Your task to perform on an android device: turn on location history Image 0: 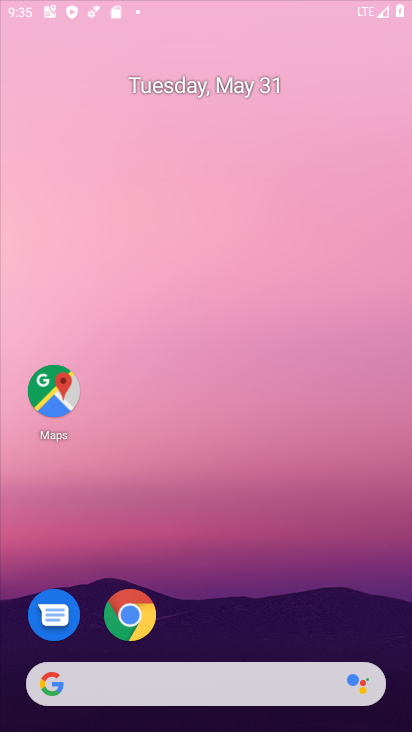
Step 0: click (348, 103)
Your task to perform on an android device: turn on location history Image 1: 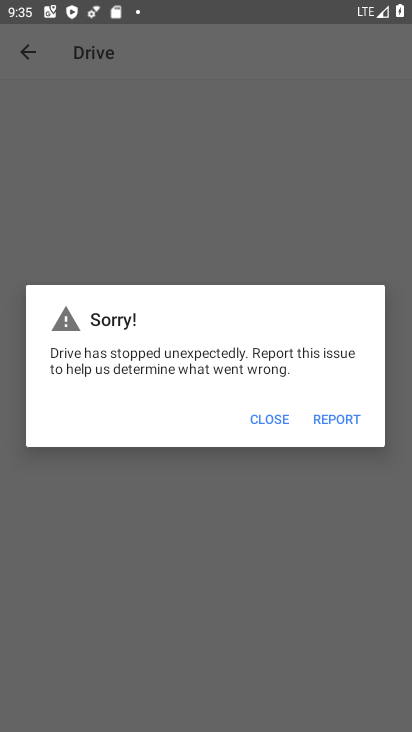
Step 1: press home button
Your task to perform on an android device: turn on location history Image 2: 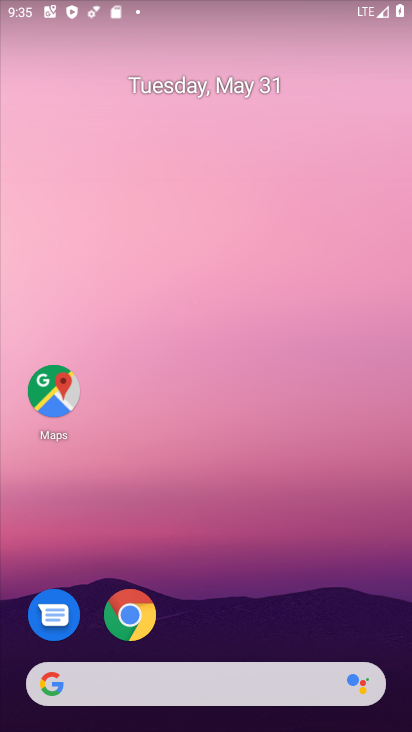
Step 2: drag from (286, 457) to (293, 152)
Your task to perform on an android device: turn on location history Image 3: 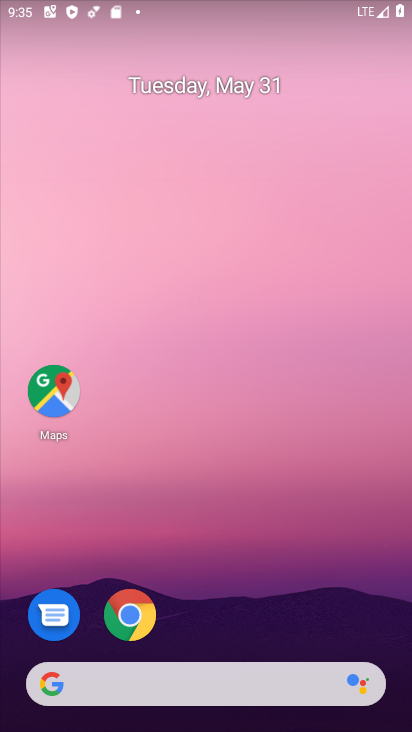
Step 3: drag from (325, 606) to (279, 168)
Your task to perform on an android device: turn on location history Image 4: 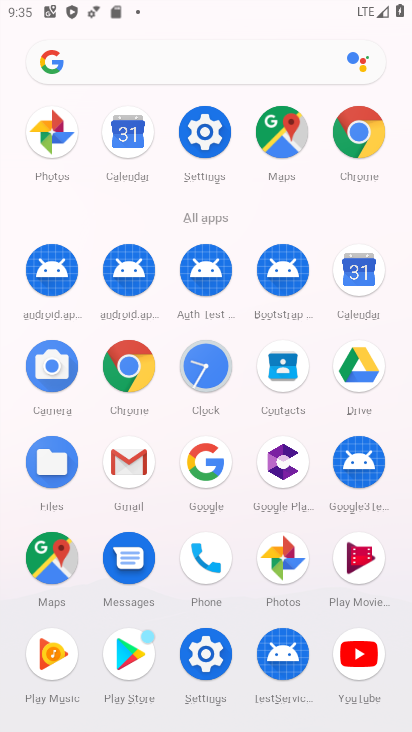
Step 4: click (187, 134)
Your task to perform on an android device: turn on location history Image 5: 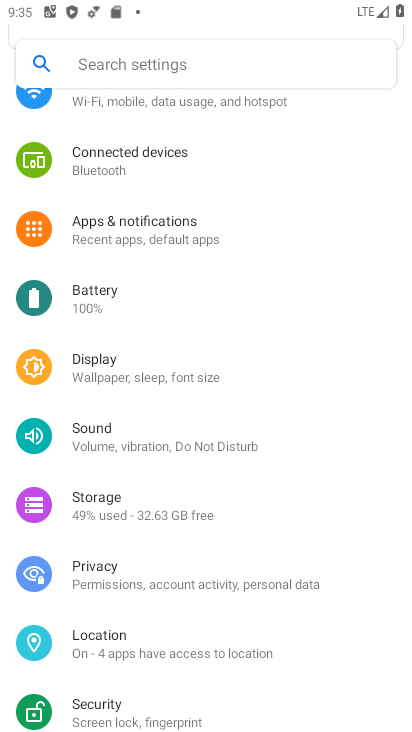
Step 5: drag from (206, 607) to (194, 294)
Your task to perform on an android device: turn on location history Image 6: 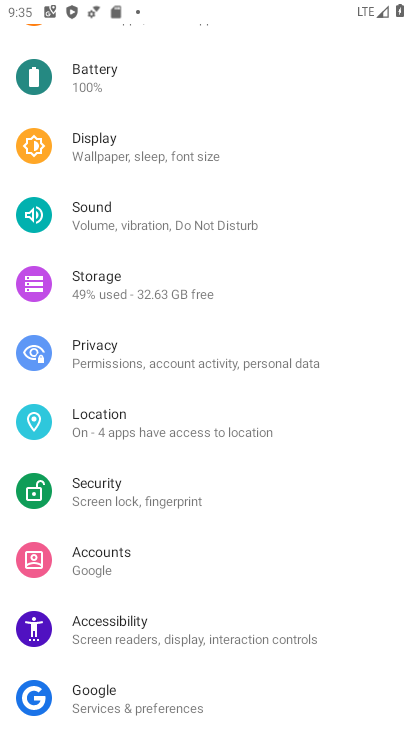
Step 6: click (144, 416)
Your task to perform on an android device: turn on location history Image 7: 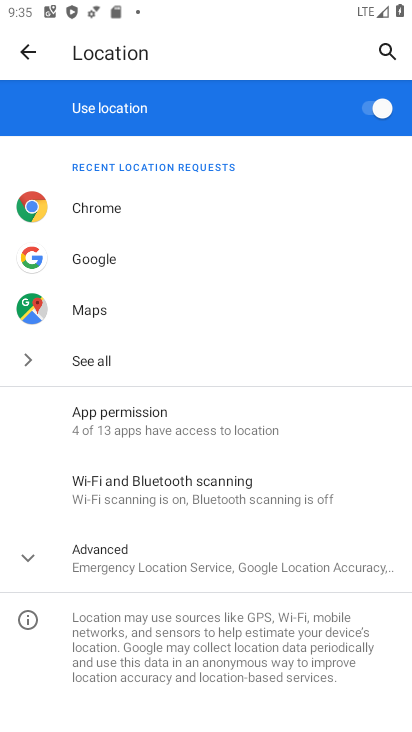
Step 7: click (146, 568)
Your task to perform on an android device: turn on location history Image 8: 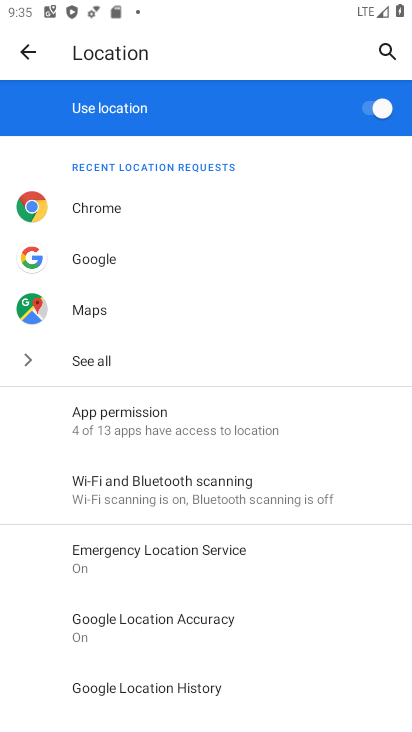
Step 8: drag from (135, 613) to (189, 353)
Your task to perform on an android device: turn on location history Image 9: 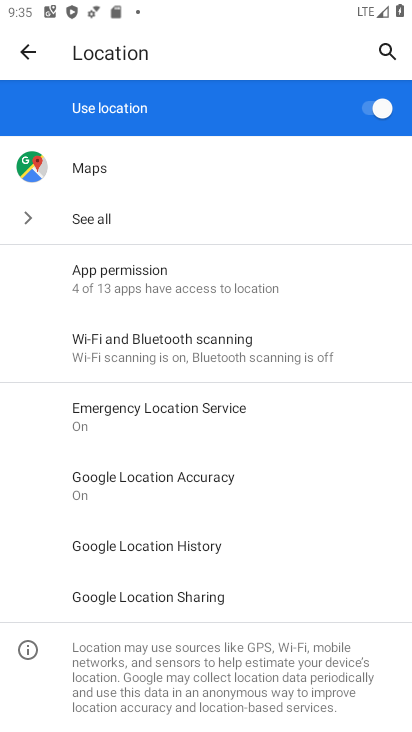
Step 9: click (161, 541)
Your task to perform on an android device: turn on location history Image 10: 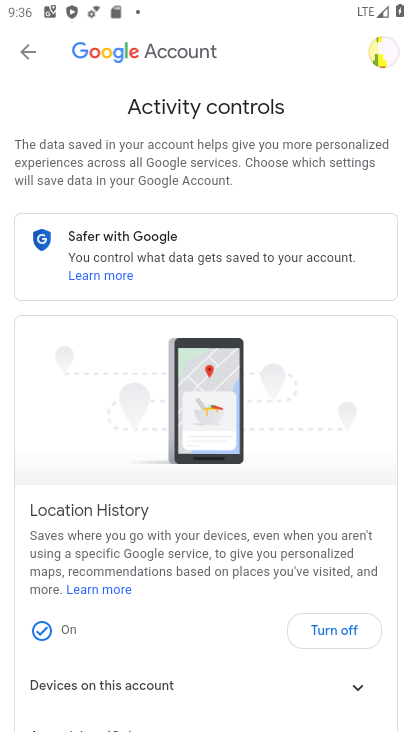
Step 10: task complete